Your task to perform on an android device: turn on priority inbox in the gmail app Image 0: 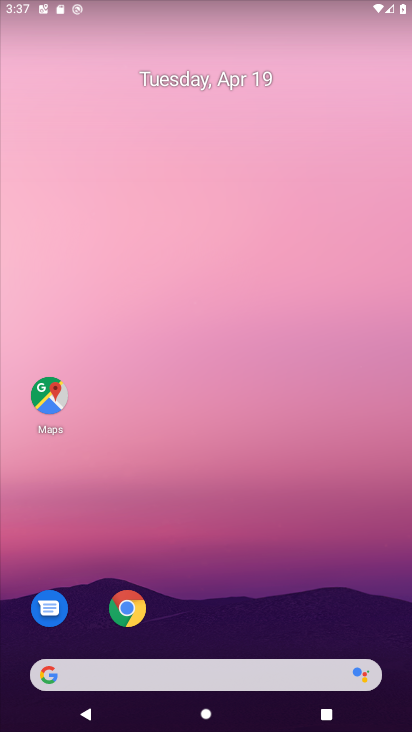
Step 0: drag from (280, 600) to (274, 31)
Your task to perform on an android device: turn on priority inbox in the gmail app Image 1: 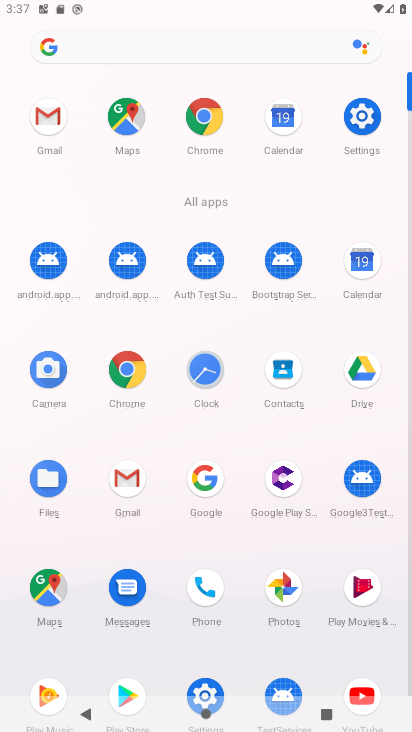
Step 1: click (128, 476)
Your task to perform on an android device: turn on priority inbox in the gmail app Image 2: 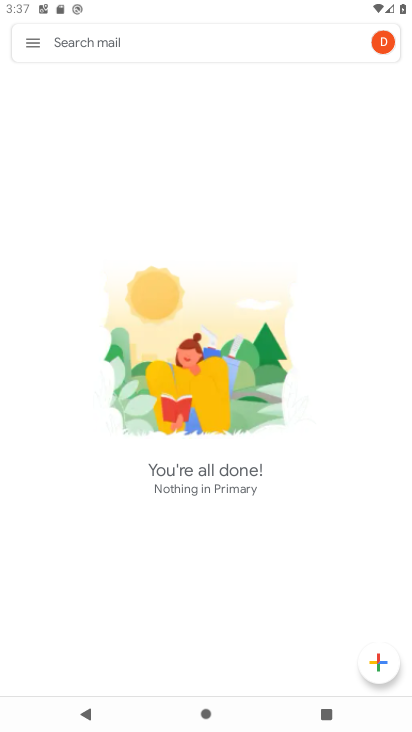
Step 2: click (28, 37)
Your task to perform on an android device: turn on priority inbox in the gmail app Image 3: 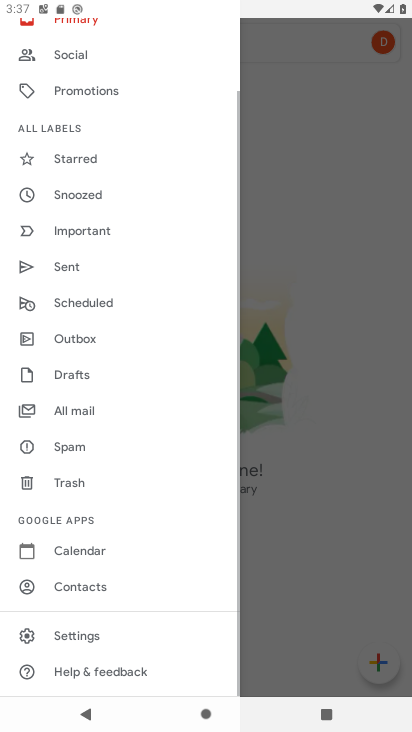
Step 3: click (94, 642)
Your task to perform on an android device: turn on priority inbox in the gmail app Image 4: 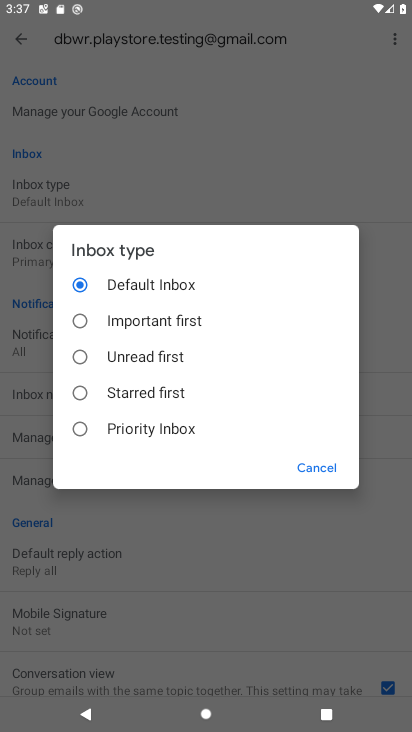
Step 4: click (314, 469)
Your task to perform on an android device: turn on priority inbox in the gmail app Image 5: 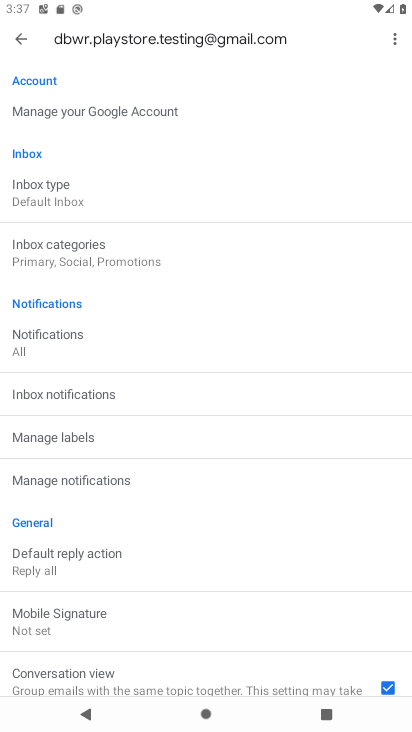
Step 5: click (63, 195)
Your task to perform on an android device: turn on priority inbox in the gmail app Image 6: 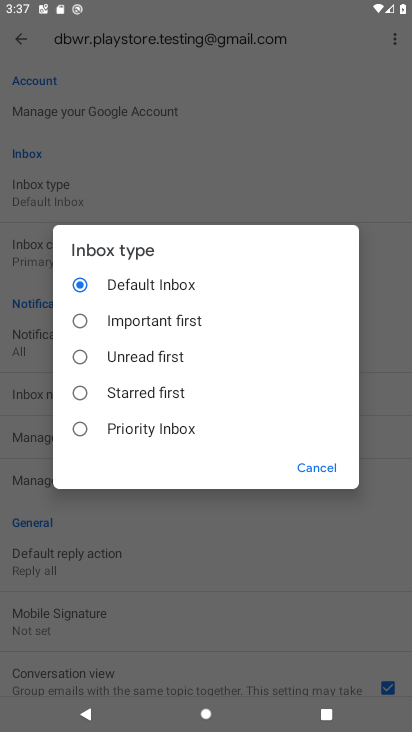
Step 6: task complete